Your task to perform on an android device: Go to network settings Image 0: 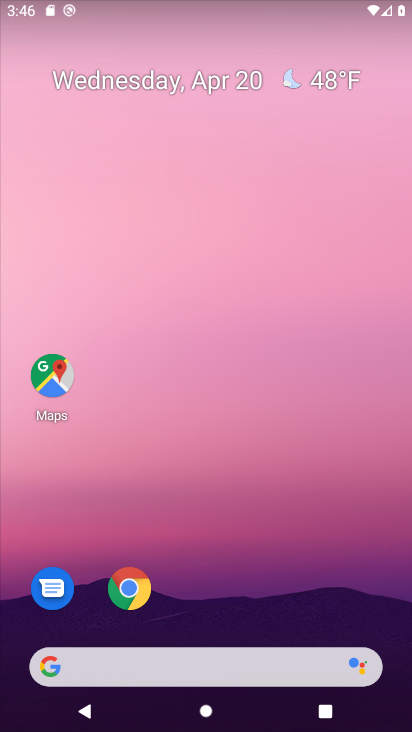
Step 0: drag from (314, 586) to (340, 221)
Your task to perform on an android device: Go to network settings Image 1: 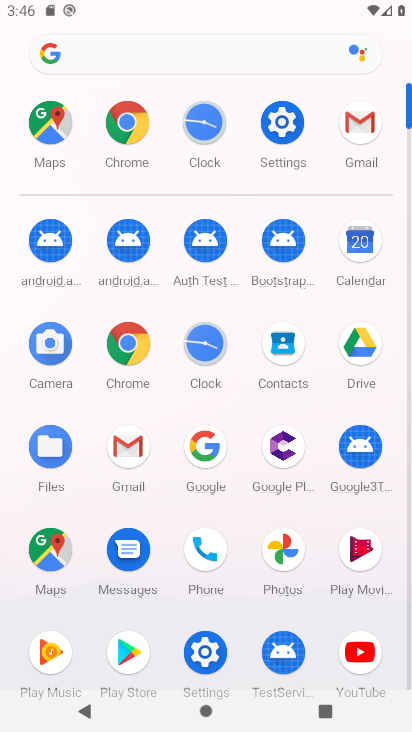
Step 1: click (272, 122)
Your task to perform on an android device: Go to network settings Image 2: 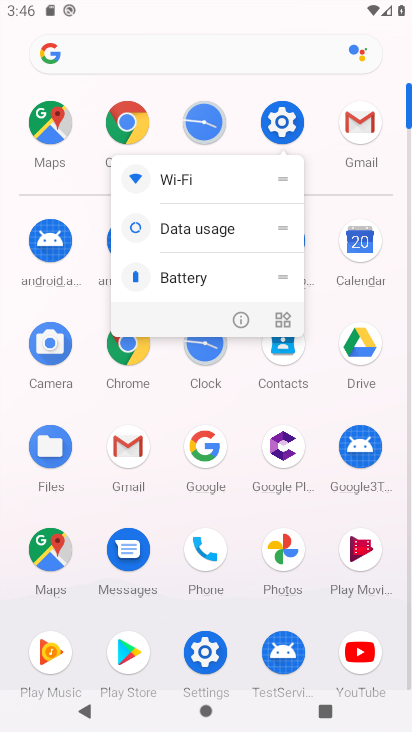
Step 2: click (272, 122)
Your task to perform on an android device: Go to network settings Image 3: 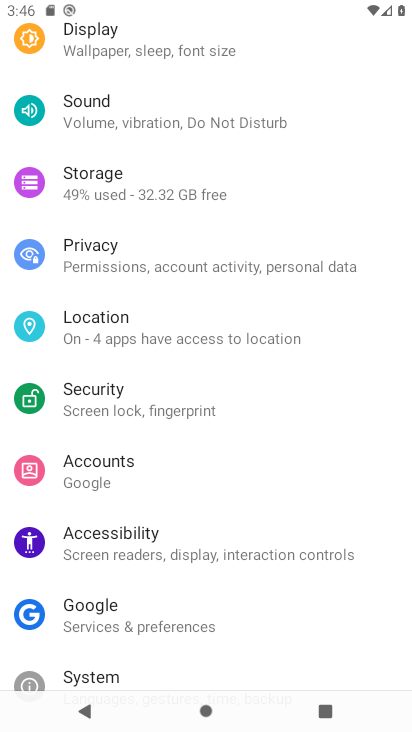
Step 3: drag from (361, 617) to (256, 341)
Your task to perform on an android device: Go to network settings Image 4: 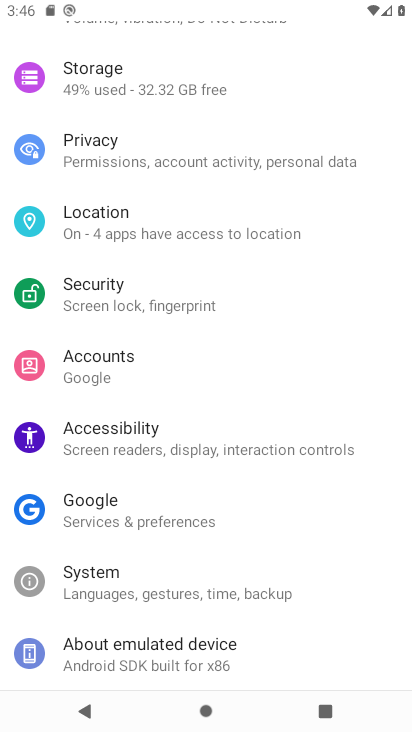
Step 4: drag from (367, 275) to (409, 566)
Your task to perform on an android device: Go to network settings Image 5: 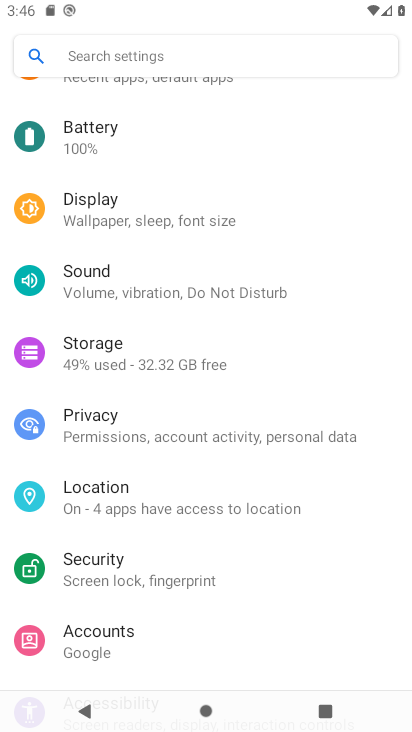
Step 5: drag from (296, 337) to (385, 624)
Your task to perform on an android device: Go to network settings Image 6: 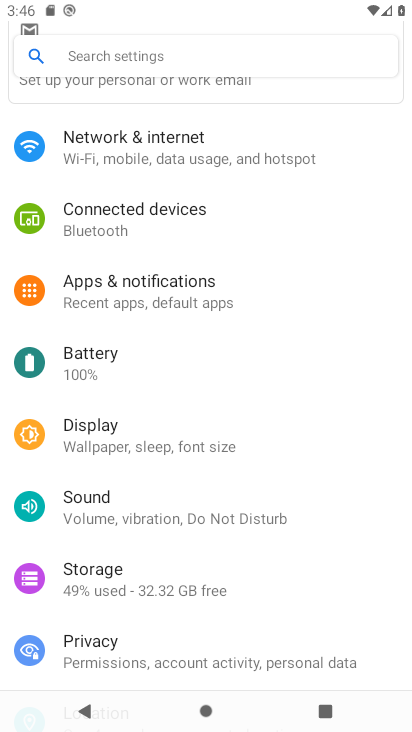
Step 6: drag from (297, 256) to (312, 504)
Your task to perform on an android device: Go to network settings Image 7: 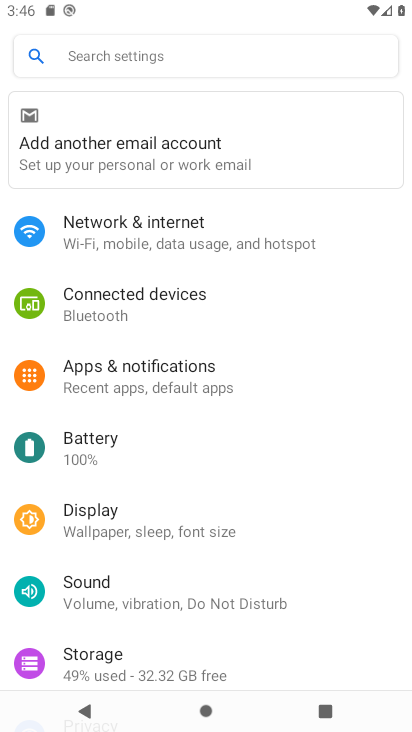
Step 7: click (159, 226)
Your task to perform on an android device: Go to network settings Image 8: 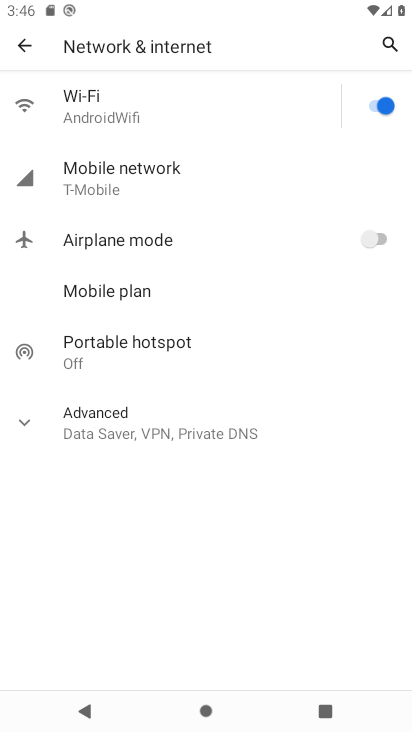
Step 8: task complete